Your task to perform on an android device: Add asus rog to the cart on bestbuy Image 0: 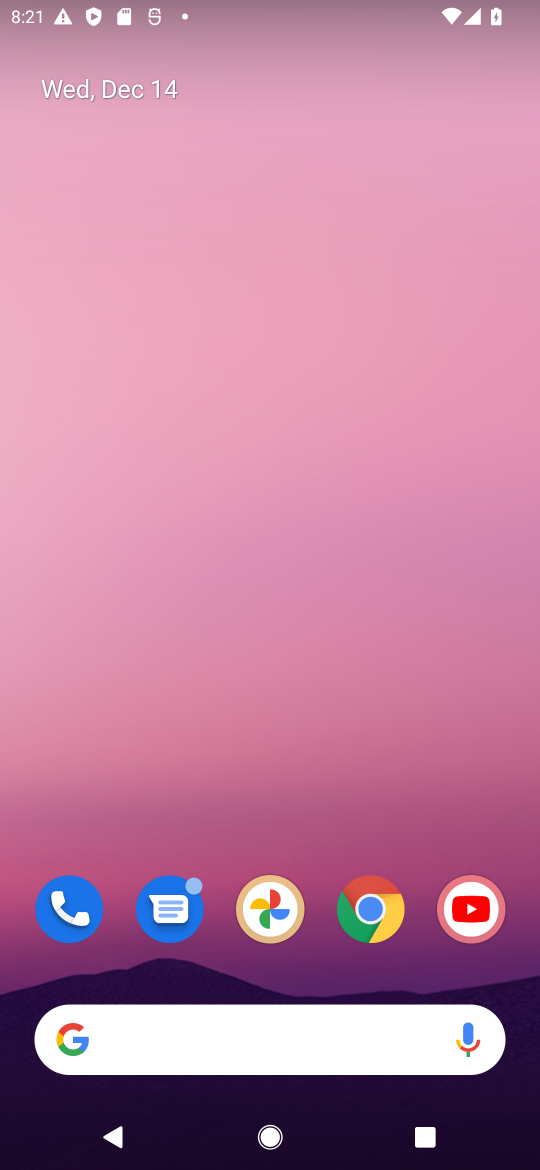
Step 0: click (358, 901)
Your task to perform on an android device: Add asus rog to the cart on bestbuy Image 1: 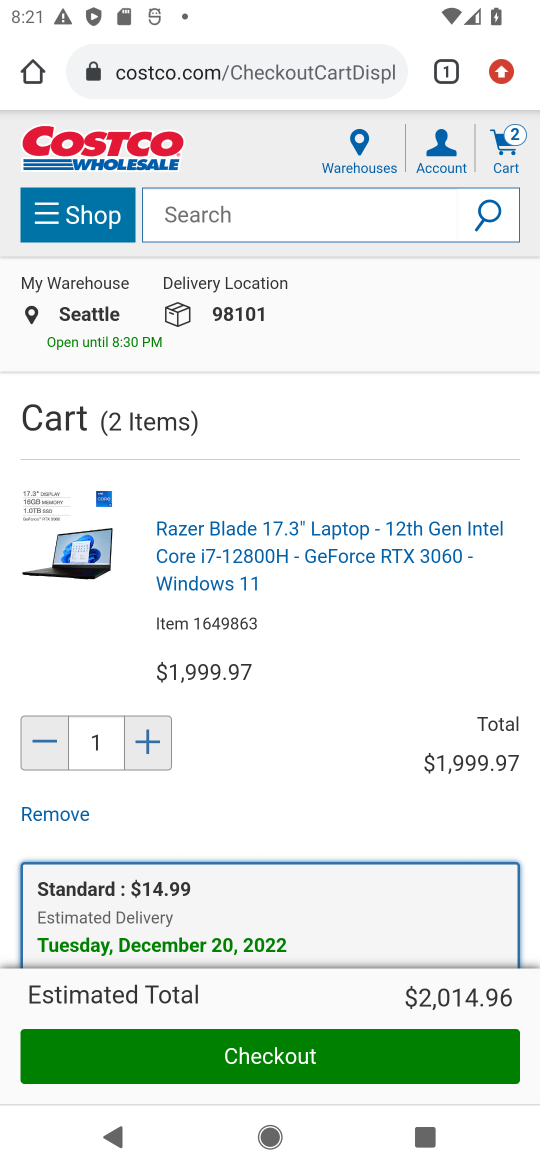
Step 1: click (304, 80)
Your task to perform on an android device: Add asus rog to the cart on bestbuy Image 2: 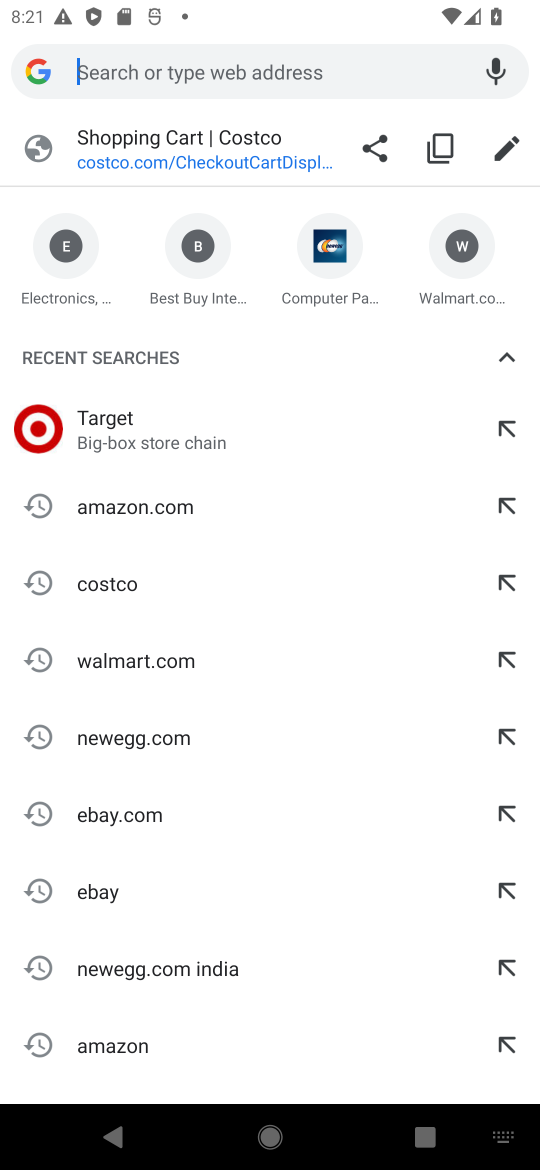
Step 2: type "bestbuy"
Your task to perform on an android device: Add asus rog to the cart on bestbuy Image 3: 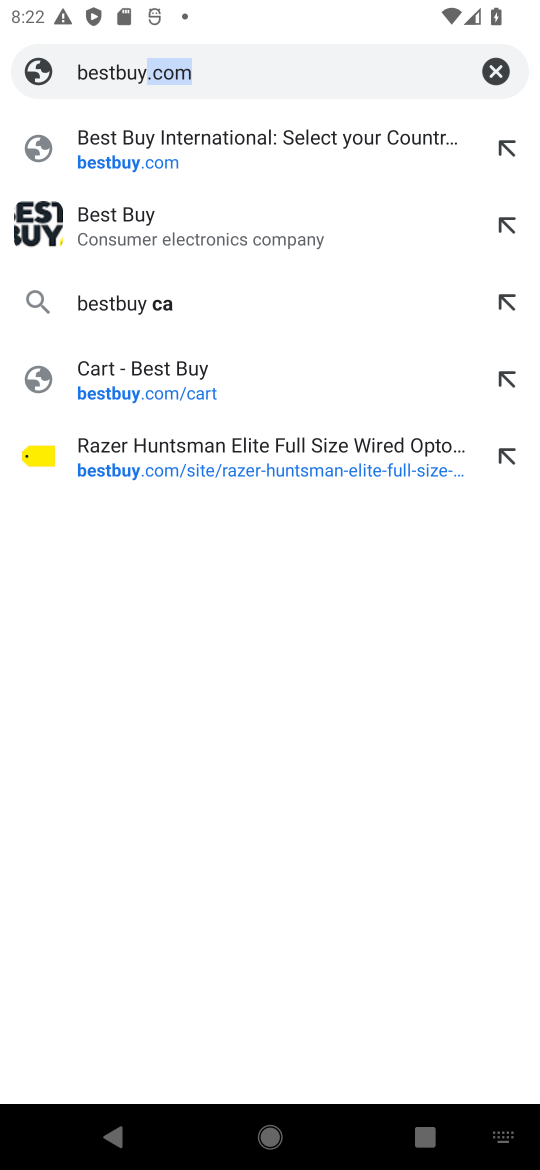
Step 3: click (436, 81)
Your task to perform on an android device: Add asus rog to the cart on bestbuy Image 4: 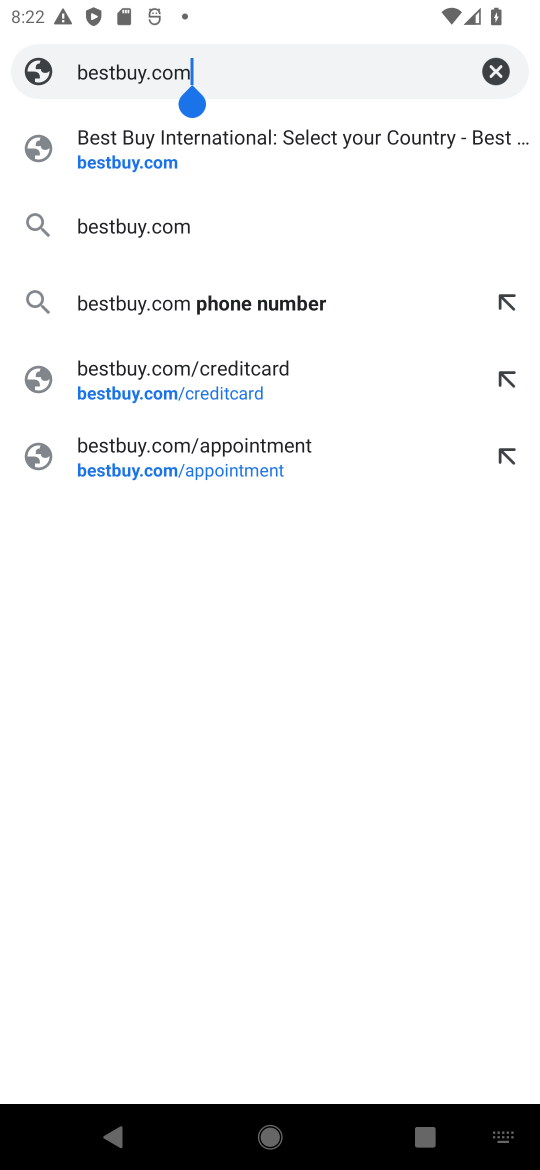
Step 4: click (168, 223)
Your task to perform on an android device: Add asus rog to the cart on bestbuy Image 5: 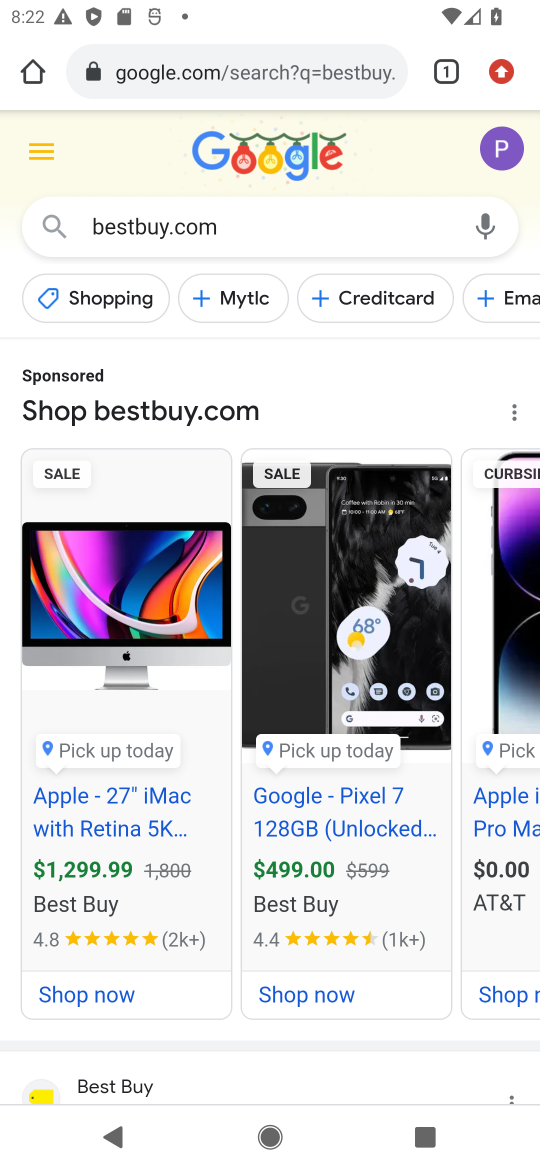
Step 5: drag from (219, 849) to (364, 314)
Your task to perform on an android device: Add asus rog to the cart on bestbuy Image 6: 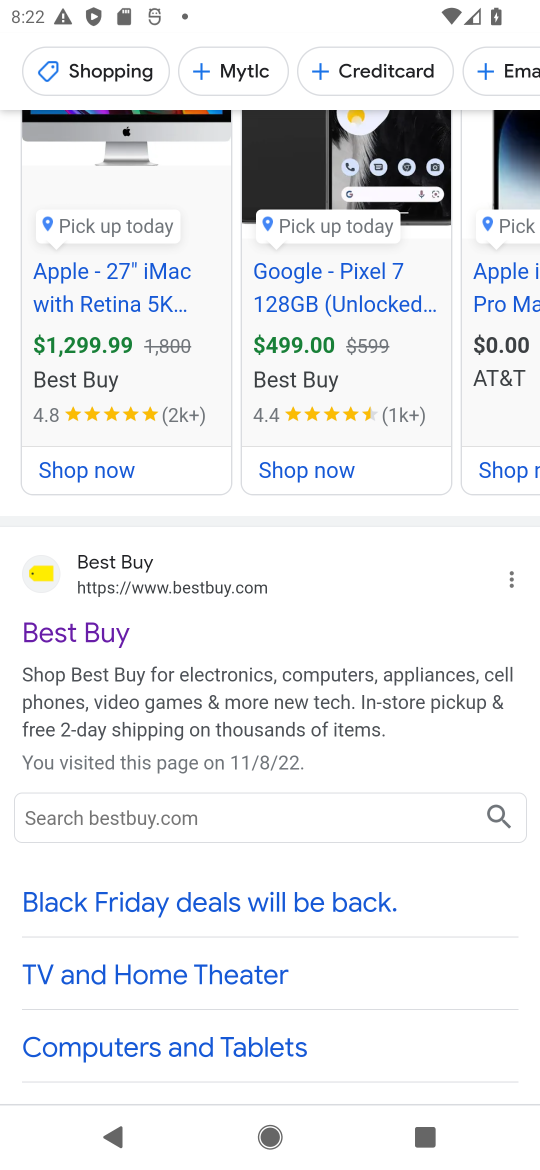
Step 6: click (177, 594)
Your task to perform on an android device: Add asus rog to the cart on bestbuy Image 7: 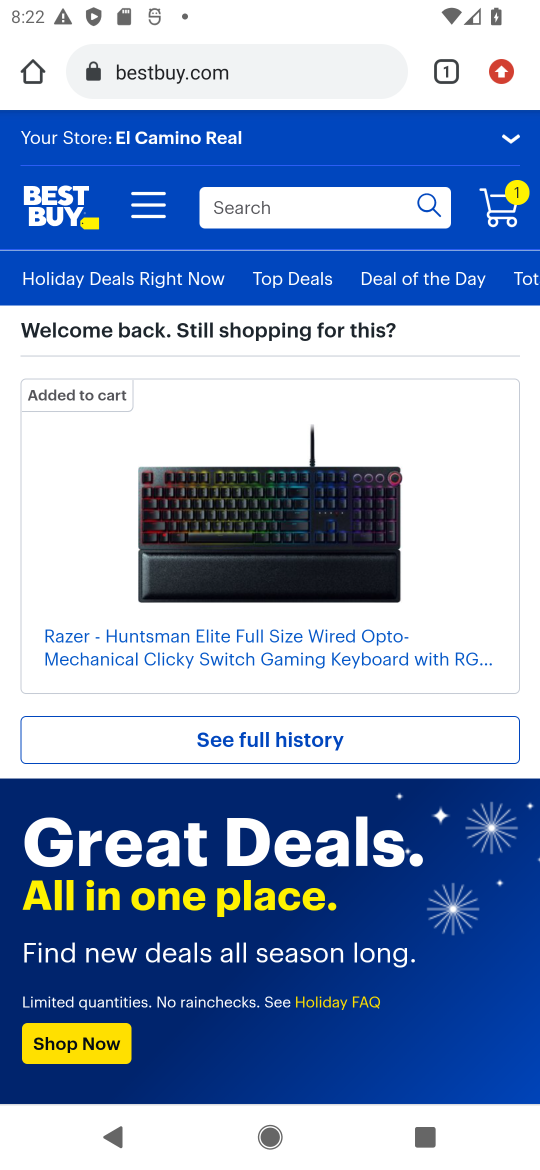
Step 7: click (360, 209)
Your task to perform on an android device: Add asus rog to the cart on bestbuy Image 8: 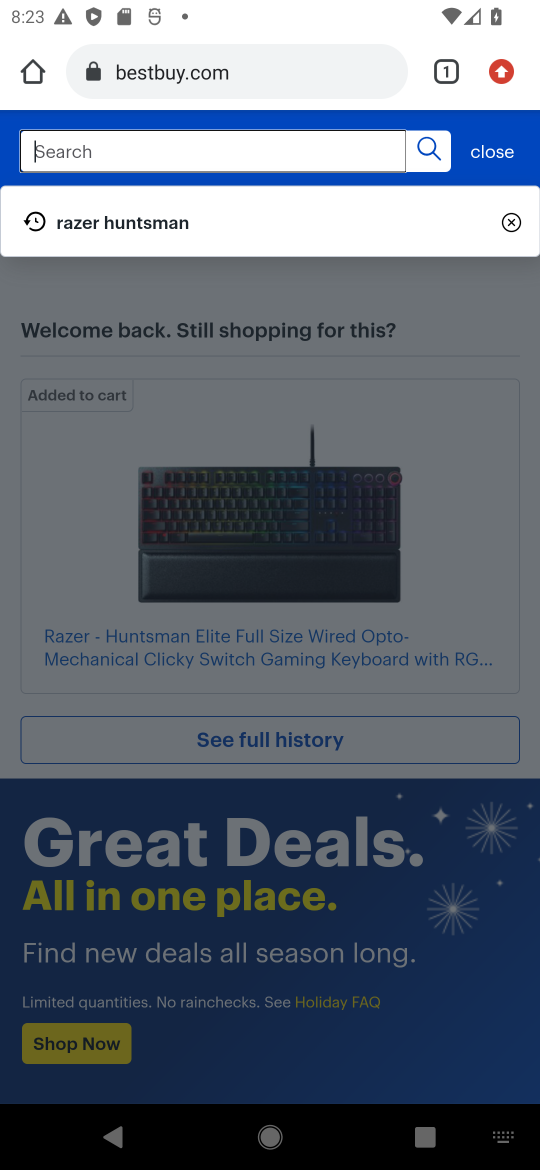
Step 8: type " asus rog "
Your task to perform on an android device: Add asus rog to the cart on bestbuy Image 9: 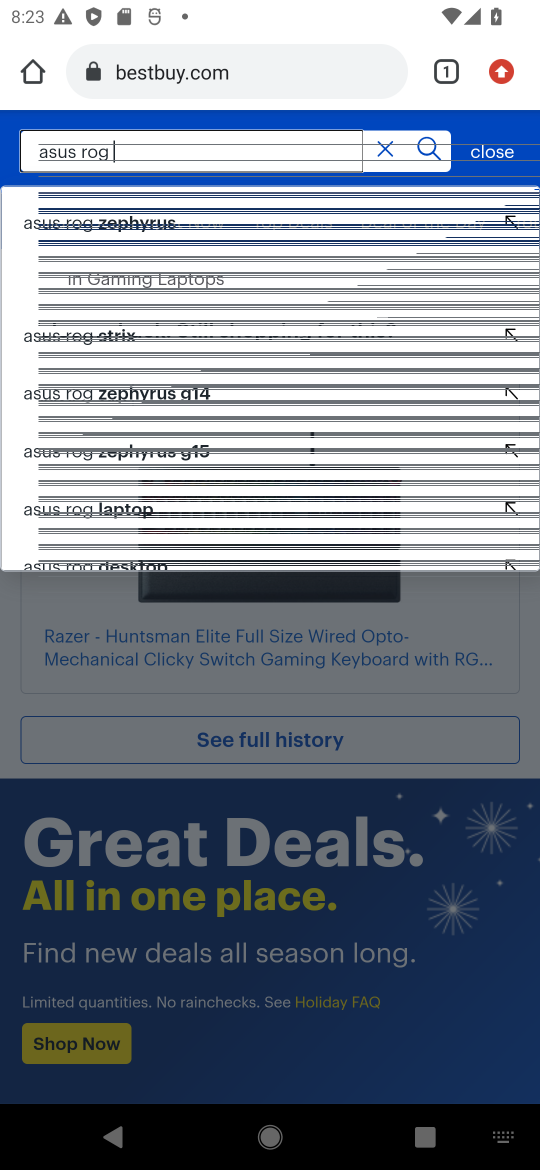
Step 9: click (426, 151)
Your task to perform on an android device: Add asus rog to the cart on bestbuy Image 10: 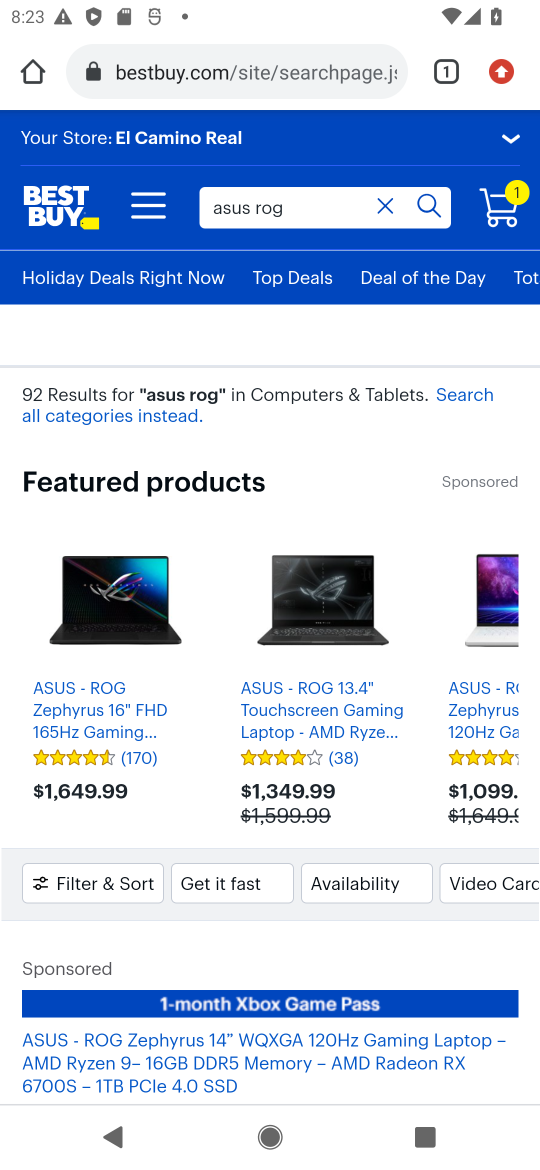
Step 10: drag from (441, 948) to (411, 526)
Your task to perform on an android device: Add asus rog to the cart on bestbuy Image 11: 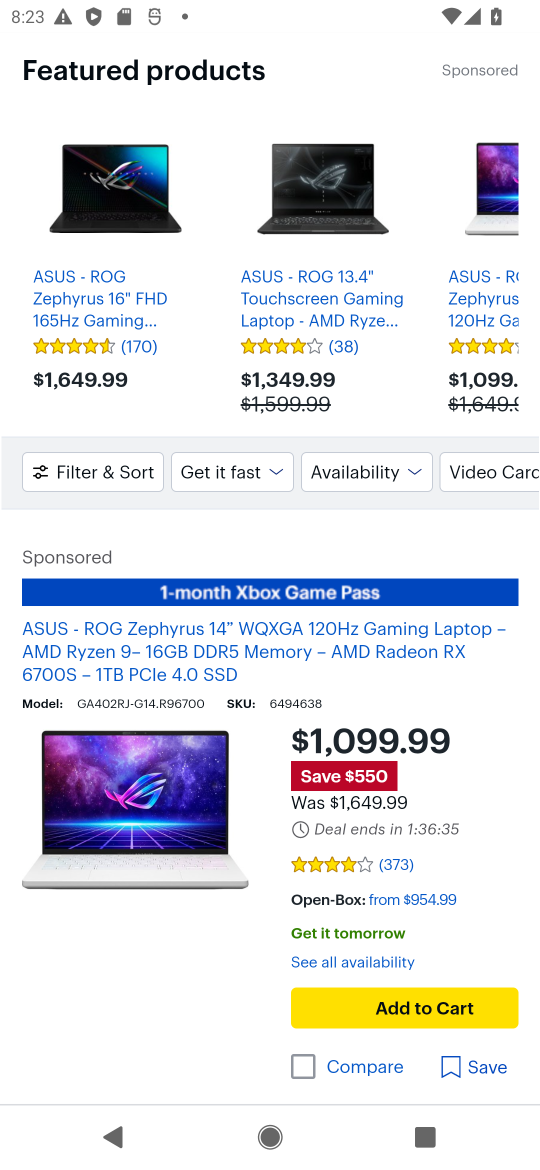
Step 11: click (124, 818)
Your task to perform on an android device: Add asus rog to the cart on bestbuy Image 12: 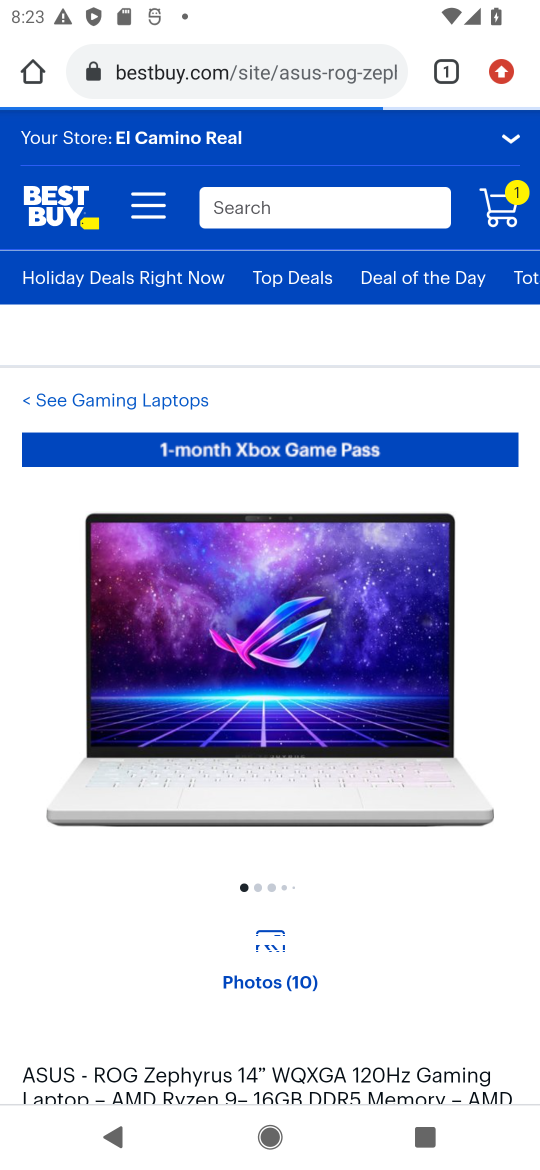
Step 12: drag from (515, 1021) to (522, 278)
Your task to perform on an android device: Add asus rog to the cart on bestbuy Image 13: 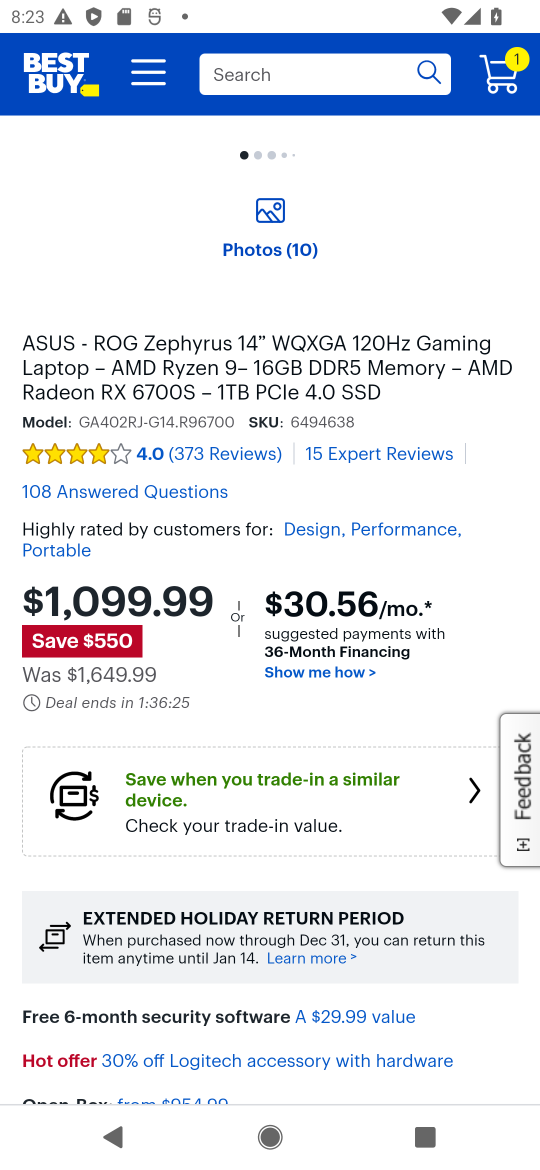
Step 13: drag from (451, 981) to (466, 371)
Your task to perform on an android device: Add asus rog to the cart on bestbuy Image 14: 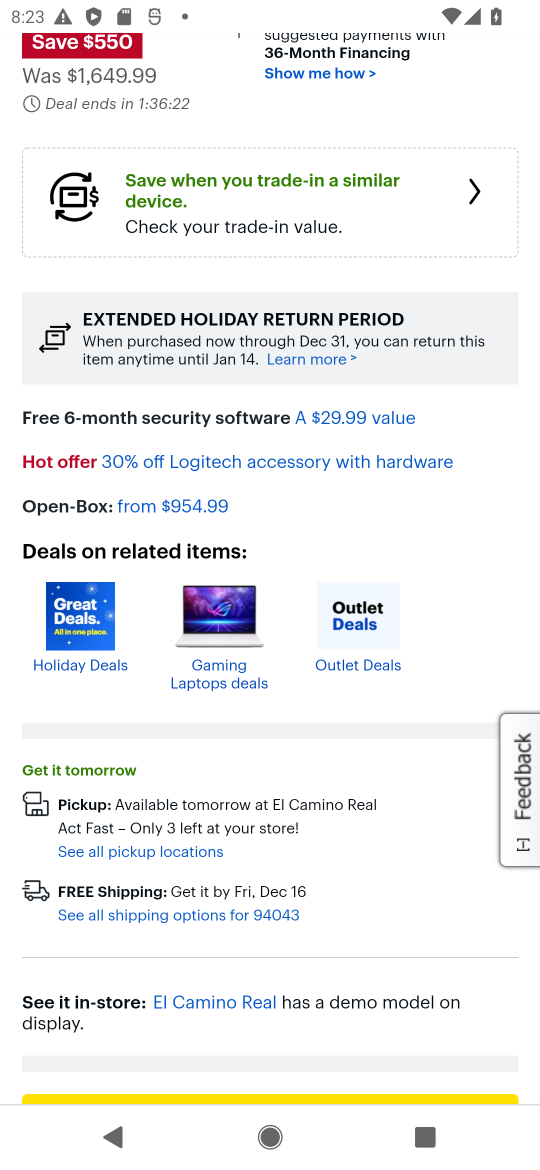
Step 14: drag from (420, 907) to (480, 451)
Your task to perform on an android device: Add asus rog to the cart on bestbuy Image 15: 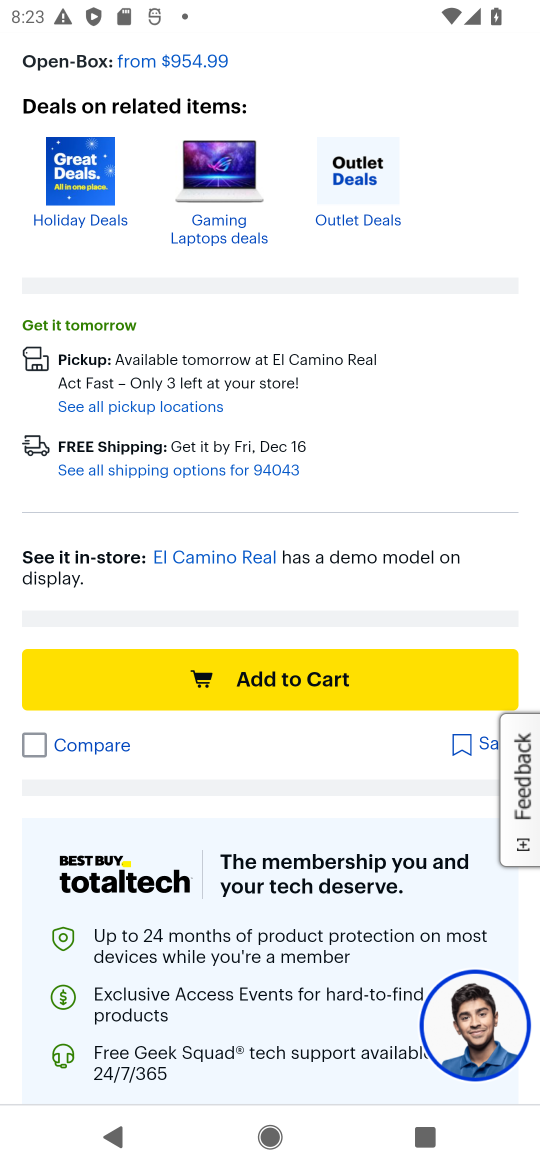
Step 15: click (343, 684)
Your task to perform on an android device: Add asus rog to the cart on bestbuy Image 16: 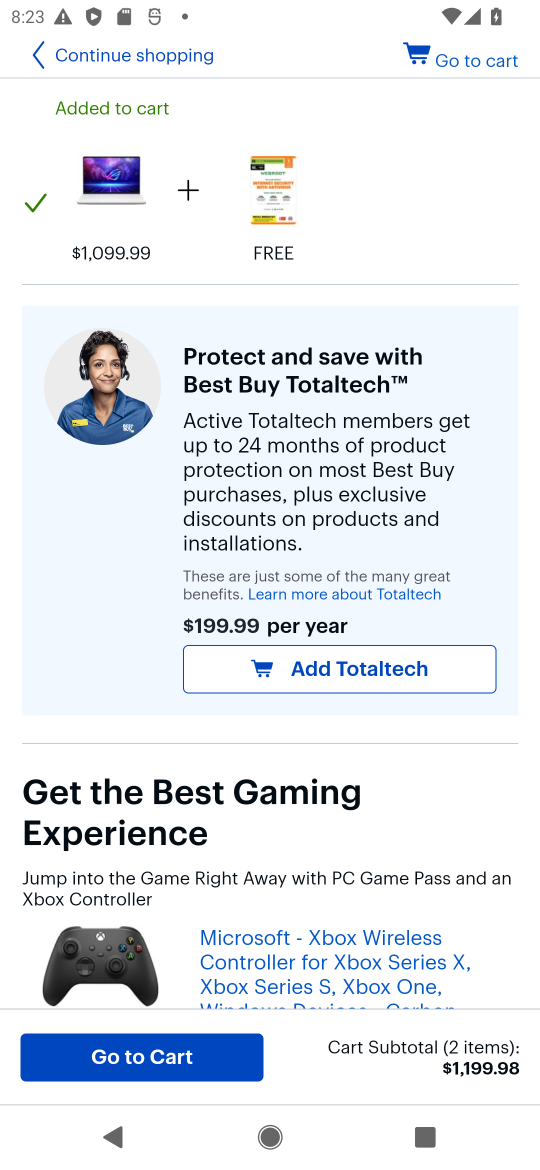
Step 16: task complete